Your task to perform on an android device: clear all cookies in the chrome app Image 0: 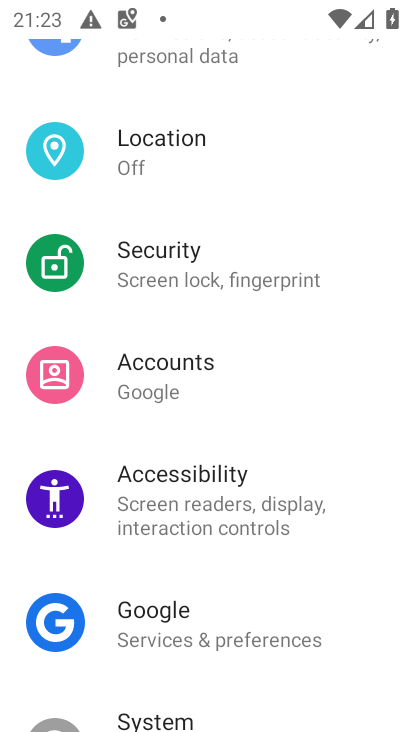
Step 0: press back button
Your task to perform on an android device: clear all cookies in the chrome app Image 1: 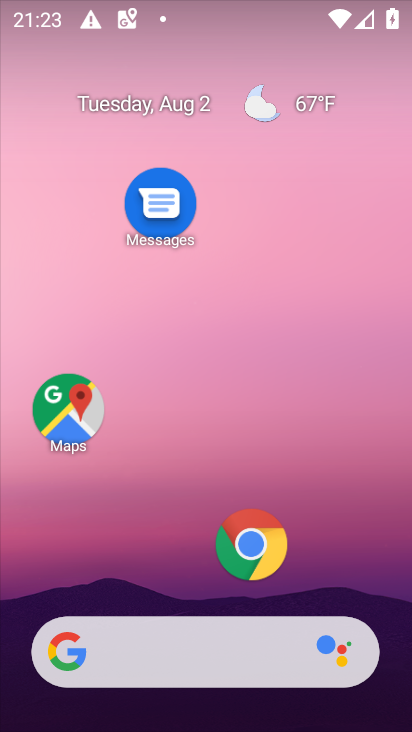
Step 1: click (230, 538)
Your task to perform on an android device: clear all cookies in the chrome app Image 2: 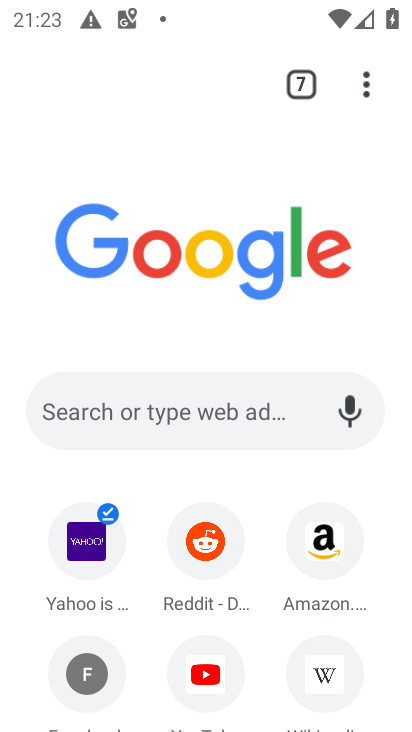
Step 2: click (369, 83)
Your task to perform on an android device: clear all cookies in the chrome app Image 3: 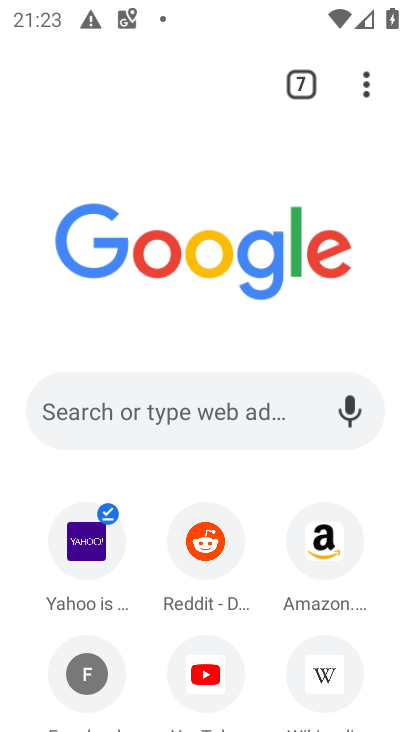
Step 3: click (364, 88)
Your task to perform on an android device: clear all cookies in the chrome app Image 4: 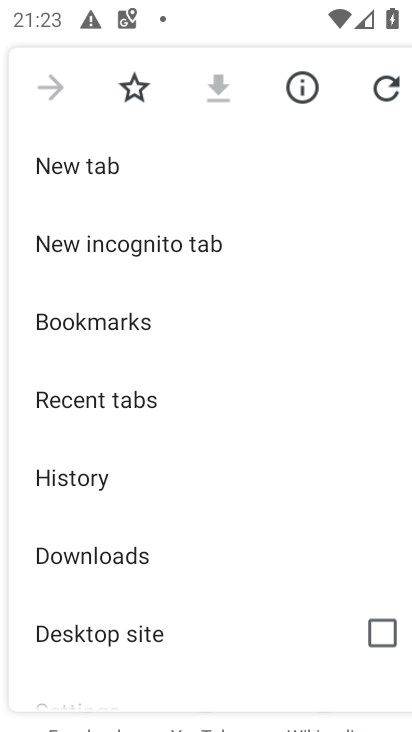
Step 4: click (126, 459)
Your task to perform on an android device: clear all cookies in the chrome app Image 5: 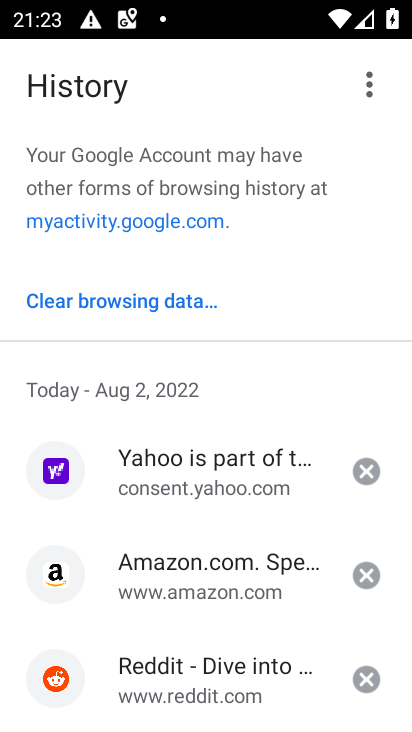
Step 5: click (120, 293)
Your task to perform on an android device: clear all cookies in the chrome app Image 6: 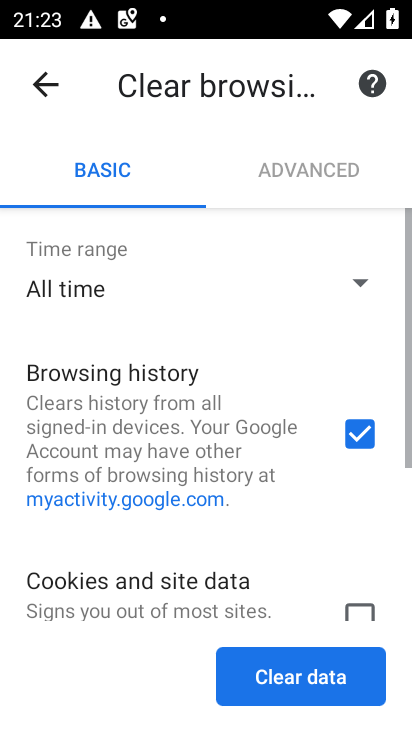
Step 6: drag from (263, 512) to (265, 224)
Your task to perform on an android device: clear all cookies in the chrome app Image 7: 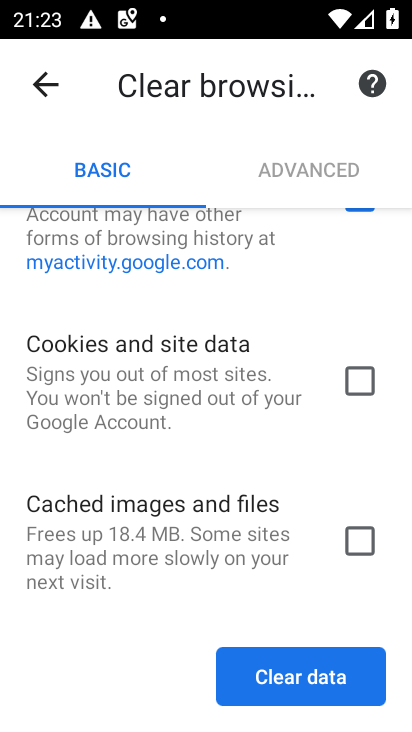
Step 7: click (361, 384)
Your task to perform on an android device: clear all cookies in the chrome app Image 8: 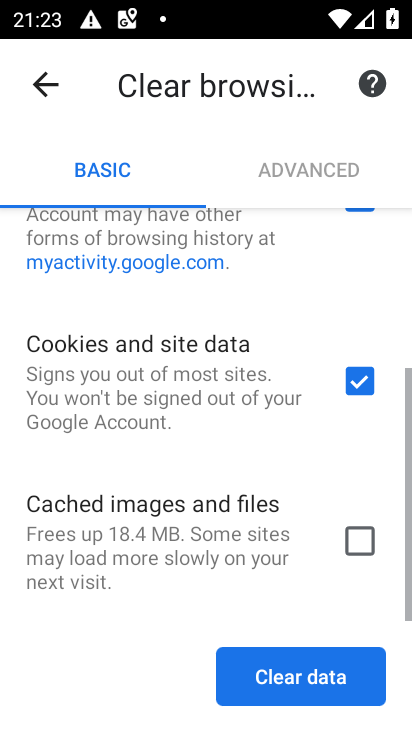
Step 8: click (359, 548)
Your task to perform on an android device: clear all cookies in the chrome app Image 9: 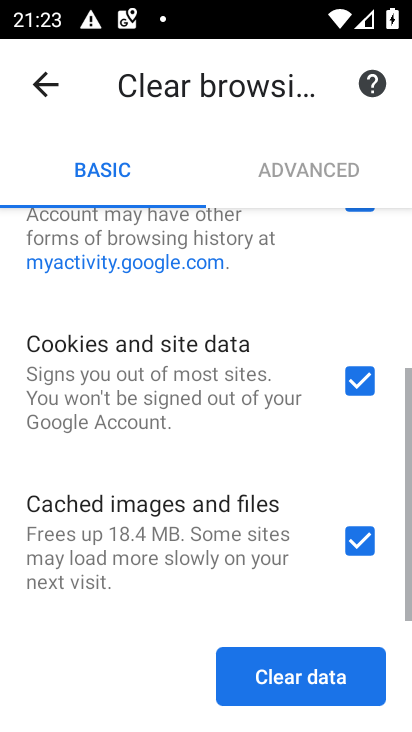
Step 9: click (283, 674)
Your task to perform on an android device: clear all cookies in the chrome app Image 10: 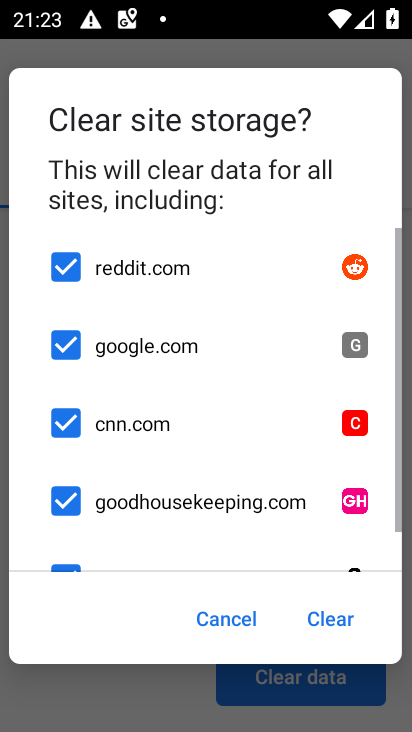
Step 10: click (316, 620)
Your task to perform on an android device: clear all cookies in the chrome app Image 11: 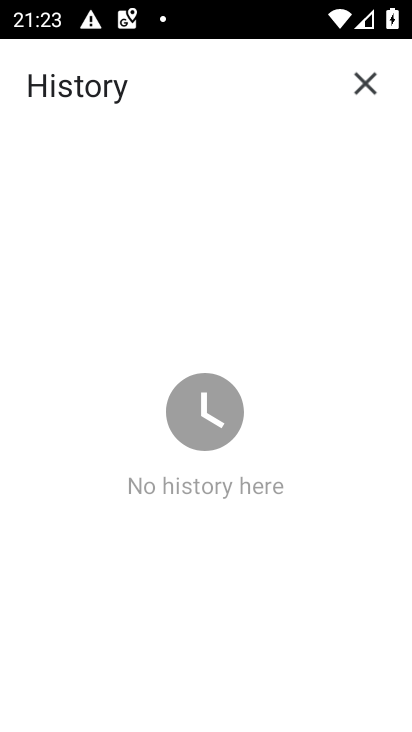
Step 11: task complete